Your task to perform on an android device: Open my contact list Image 0: 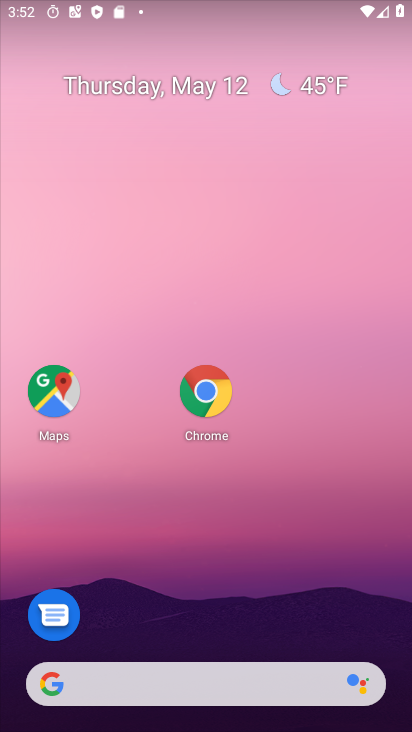
Step 0: drag from (188, 589) to (217, 71)
Your task to perform on an android device: Open my contact list Image 1: 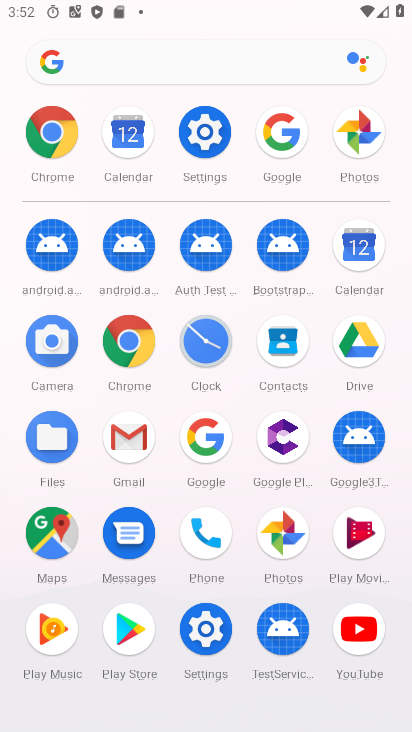
Step 1: click (283, 341)
Your task to perform on an android device: Open my contact list Image 2: 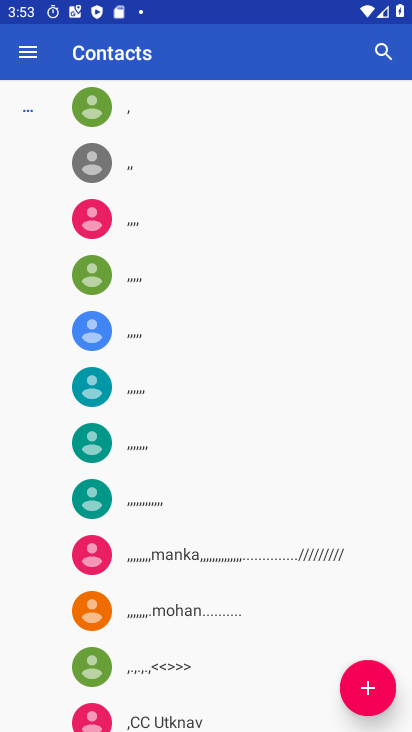
Step 2: task complete